Your task to perform on an android device: toggle javascript in the chrome app Image 0: 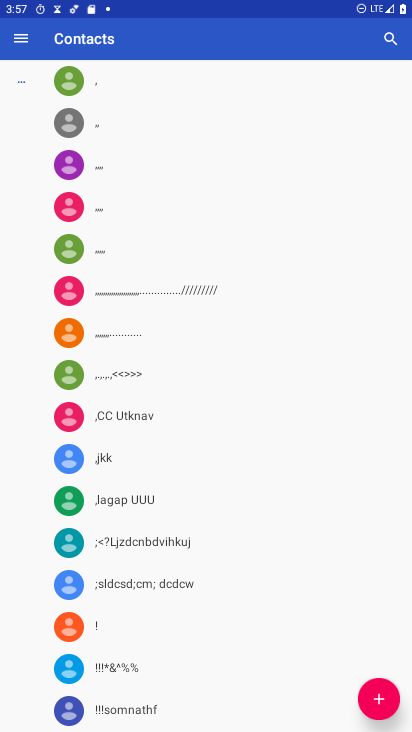
Step 0: press home button
Your task to perform on an android device: toggle javascript in the chrome app Image 1: 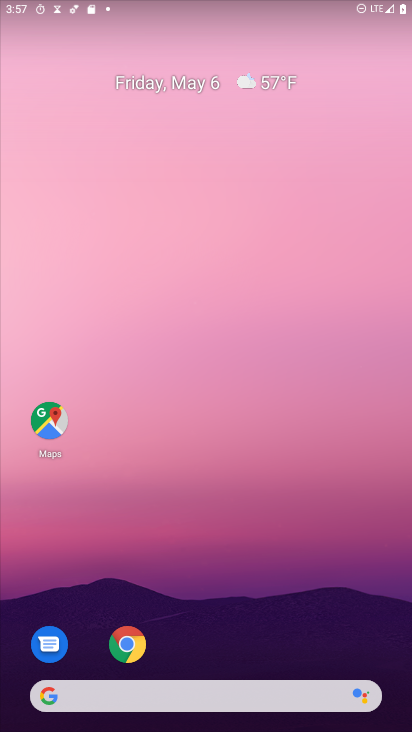
Step 1: click (128, 647)
Your task to perform on an android device: toggle javascript in the chrome app Image 2: 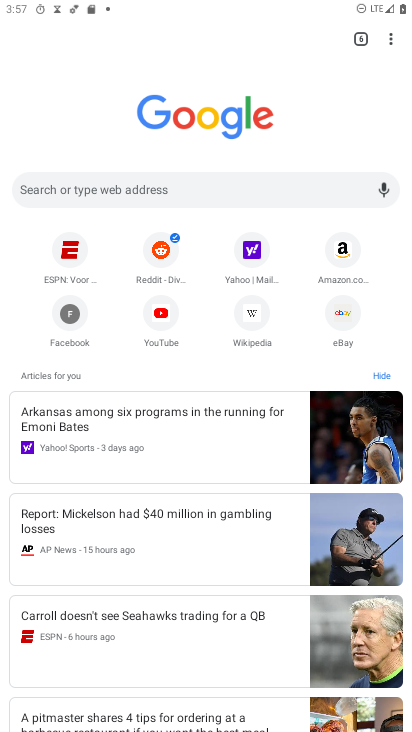
Step 2: click (390, 42)
Your task to perform on an android device: toggle javascript in the chrome app Image 3: 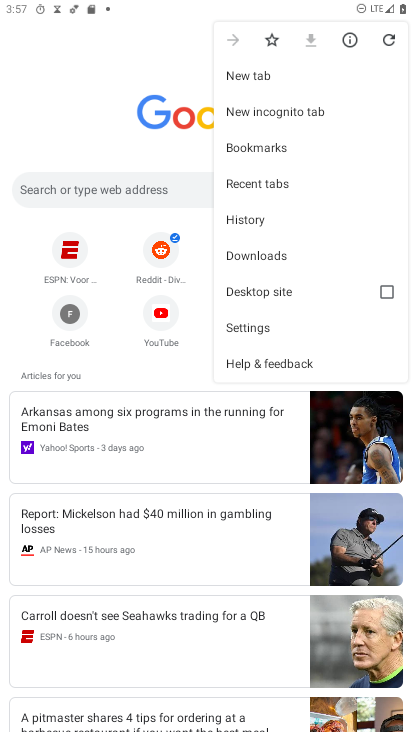
Step 3: click (254, 325)
Your task to perform on an android device: toggle javascript in the chrome app Image 4: 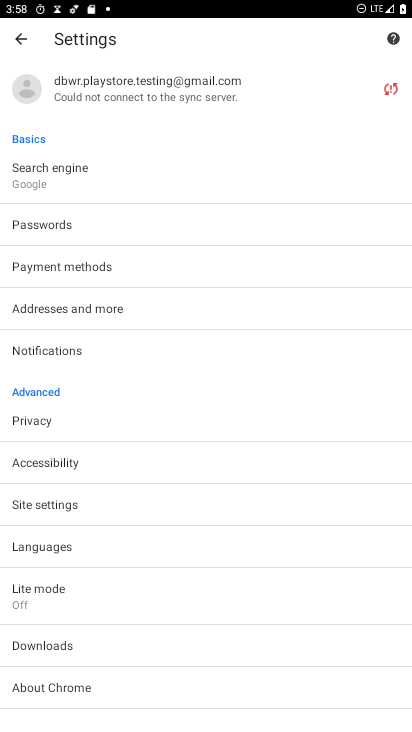
Step 4: click (52, 502)
Your task to perform on an android device: toggle javascript in the chrome app Image 5: 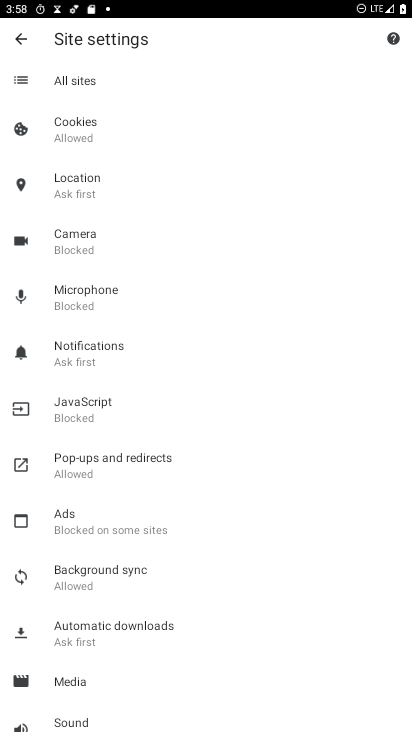
Step 5: click (89, 398)
Your task to perform on an android device: toggle javascript in the chrome app Image 6: 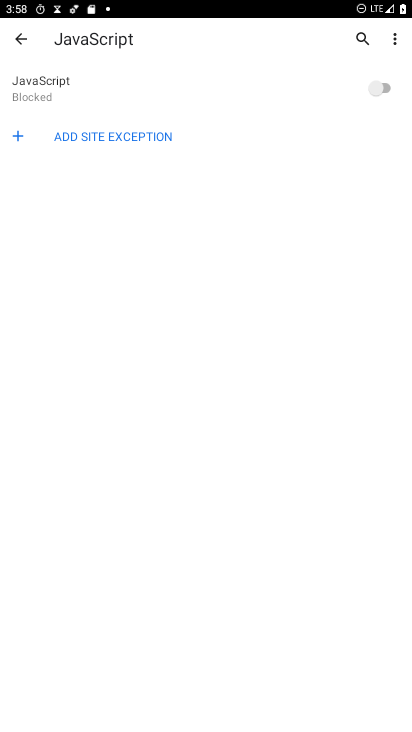
Step 6: click (385, 85)
Your task to perform on an android device: toggle javascript in the chrome app Image 7: 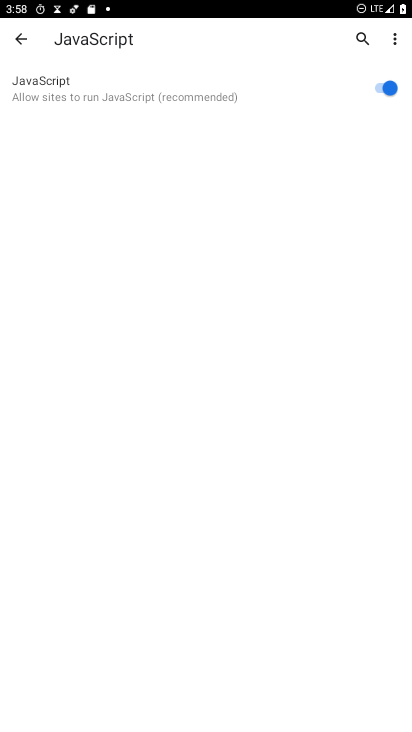
Step 7: task complete